Your task to perform on an android device: Search for sushi restaurants on Maps Image 0: 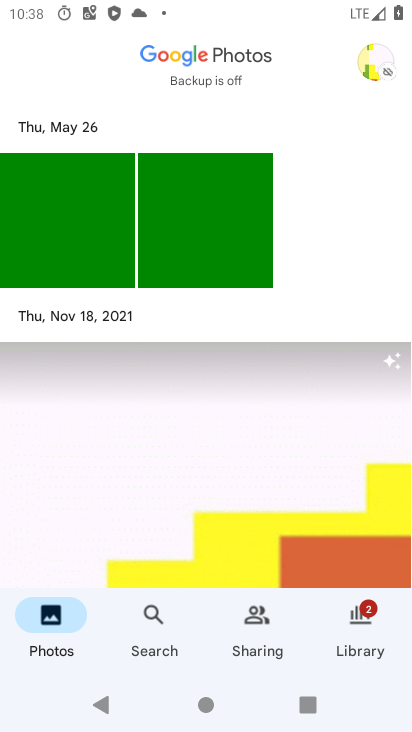
Step 0: press home button
Your task to perform on an android device: Search for sushi restaurants on Maps Image 1: 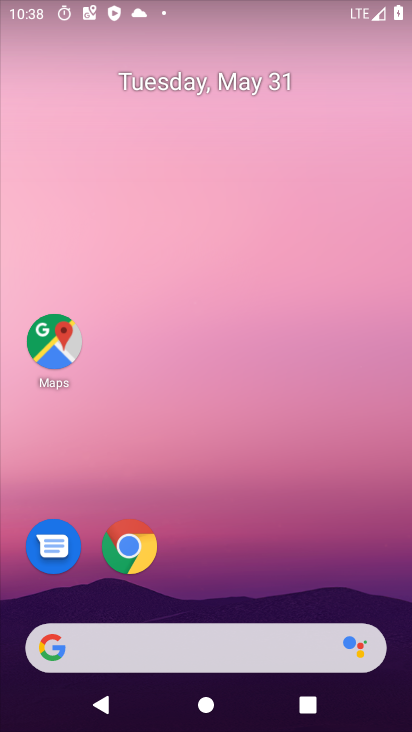
Step 1: drag from (89, 262) to (78, 343)
Your task to perform on an android device: Search for sushi restaurants on Maps Image 2: 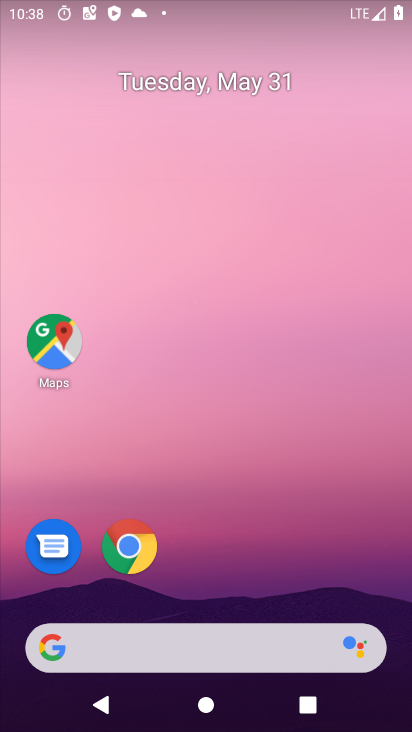
Step 2: click (56, 340)
Your task to perform on an android device: Search for sushi restaurants on Maps Image 3: 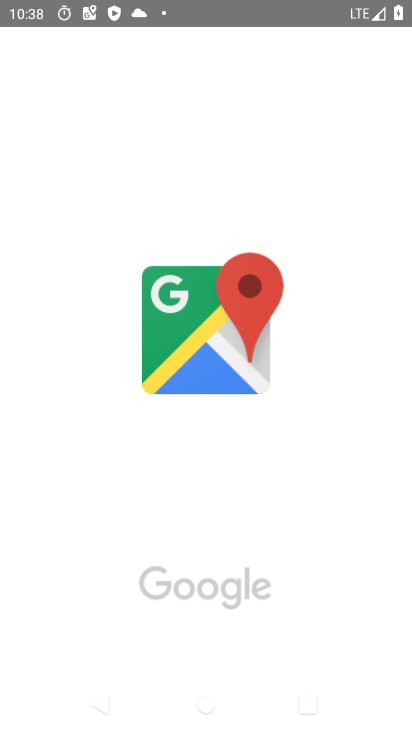
Step 3: click (56, 340)
Your task to perform on an android device: Search for sushi restaurants on Maps Image 4: 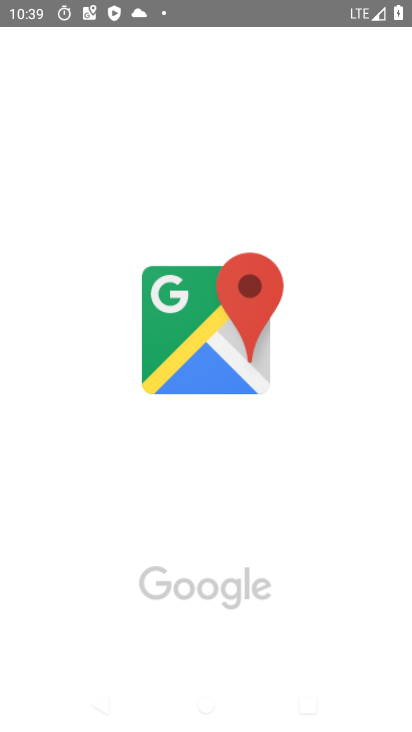
Step 4: type ""
Your task to perform on an android device: Search for sushi restaurants on Maps Image 5: 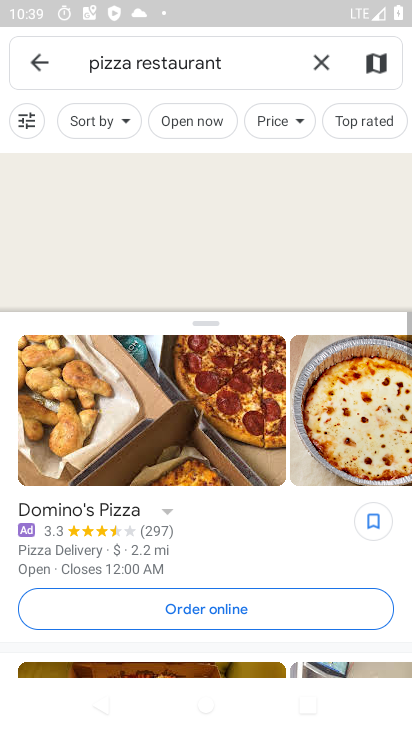
Step 5: type ""
Your task to perform on an android device: Search for sushi restaurants on Maps Image 6: 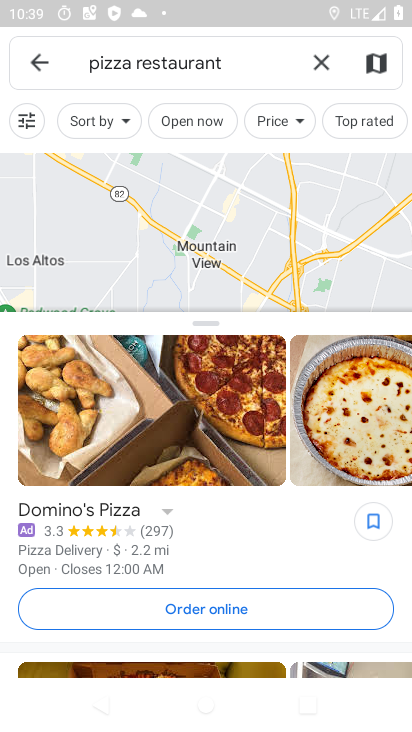
Step 6: click (330, 58)
Your task to perform on an android device: Search for sushi restaurants on Maps Image 7: 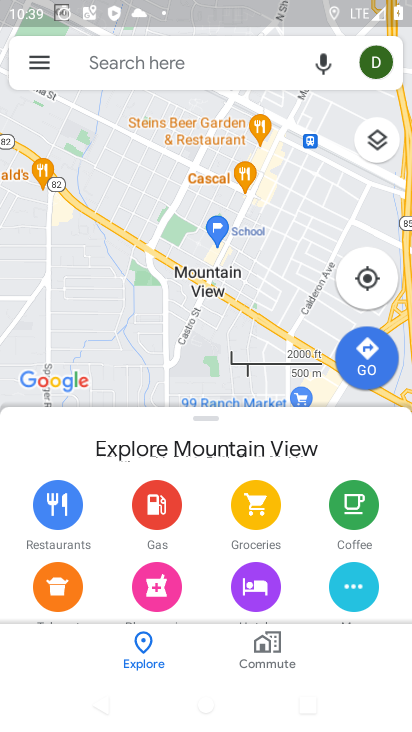
Step 7: click (242, 49)
Your task to perform on an android device: Search for sushi restaurants on Maps Image 8: 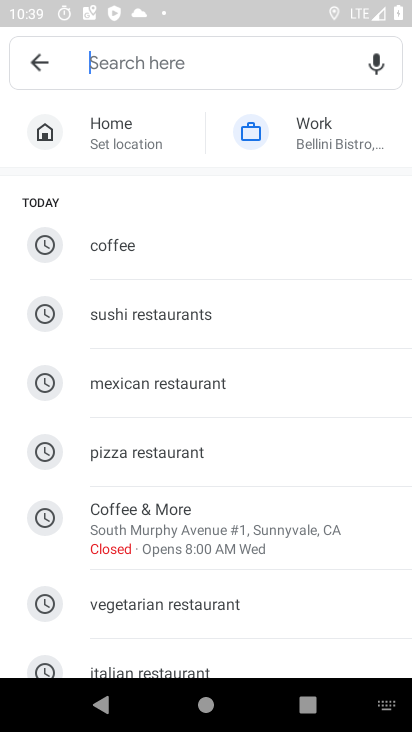
Step 8: click (88, 298)
Your task to perform on an android device: Search for sushi restaurants on Maps Image 9: 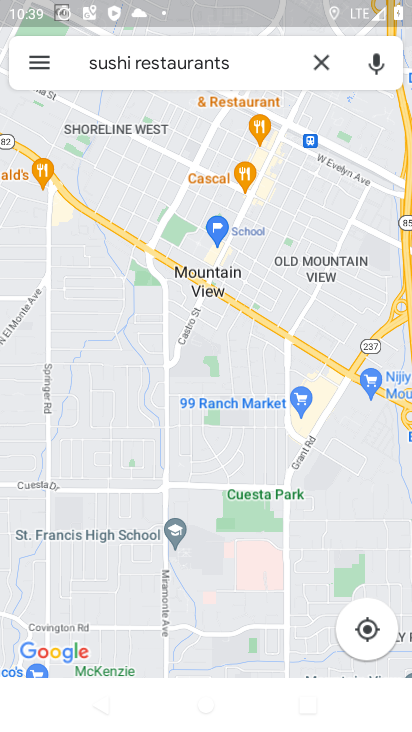
Step 9: task complete